Your task to perform on an android device: Go to Yahoo.com Image 0: 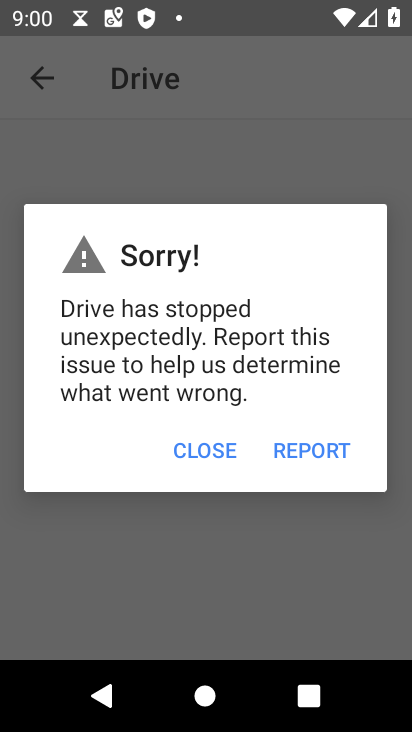
Step 0: press home button
Your task to perform on an android device: Go to Yahoo.com Image 1: 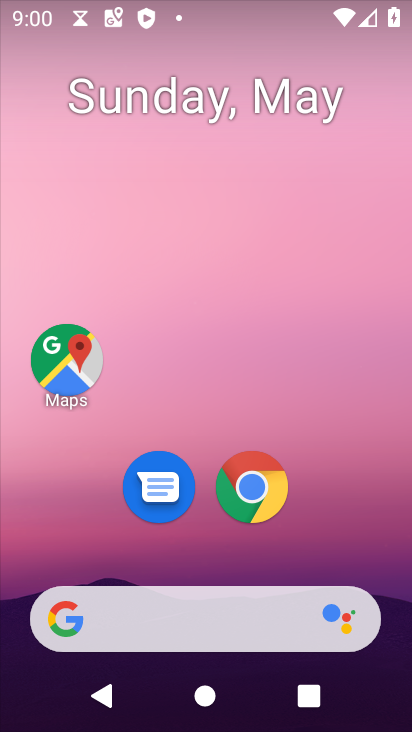
Step 1: click (240, 515)
Your task to perform on an android device: Go to Yahoo.com Image 2: 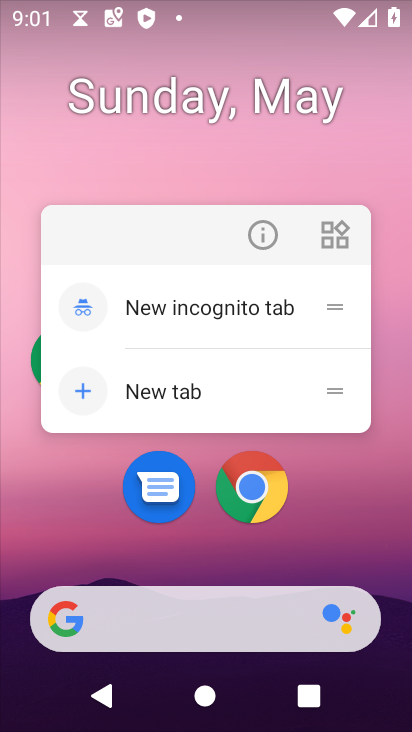
Step 2: click (240, 514)
Your task to perform on an android device: Go to Yahoo.com Image 3: 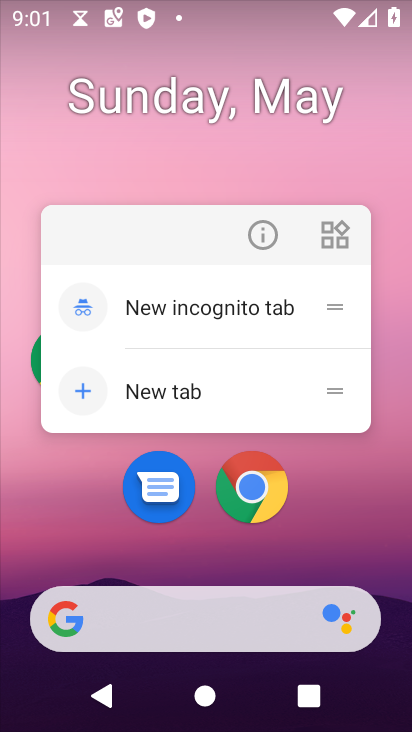
Step 3: click (255, 493)
Your task to perform on an android device: Go to Yahoo.com Image 4: 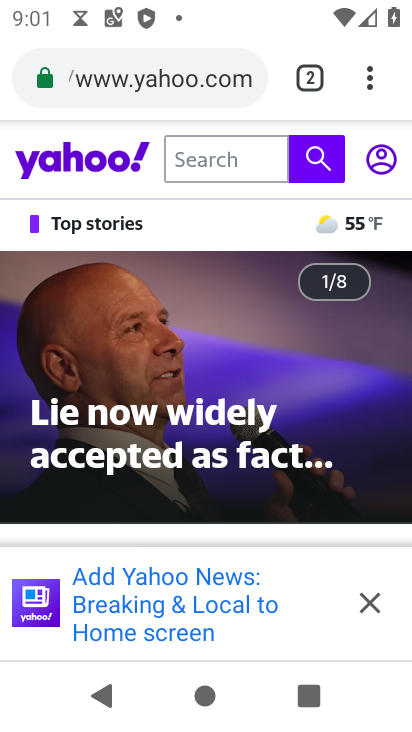
Step 4: task complete